Your task to perform on an android device: Open network settings Image 0: 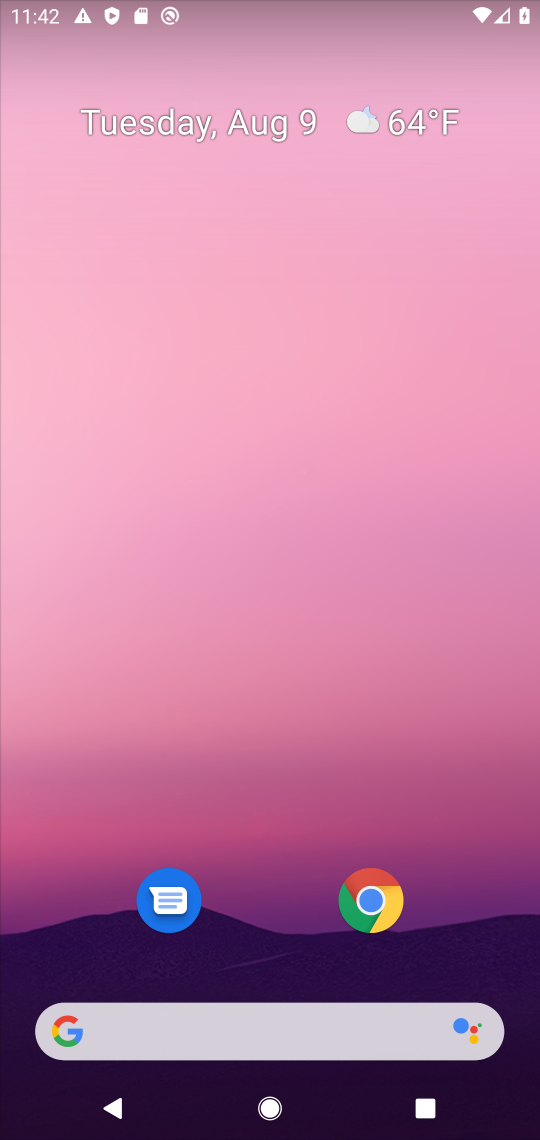
Step 0: drag from (302, 855) to (316, 74)
Your task to perform on an android device: Open network settings Image 1: 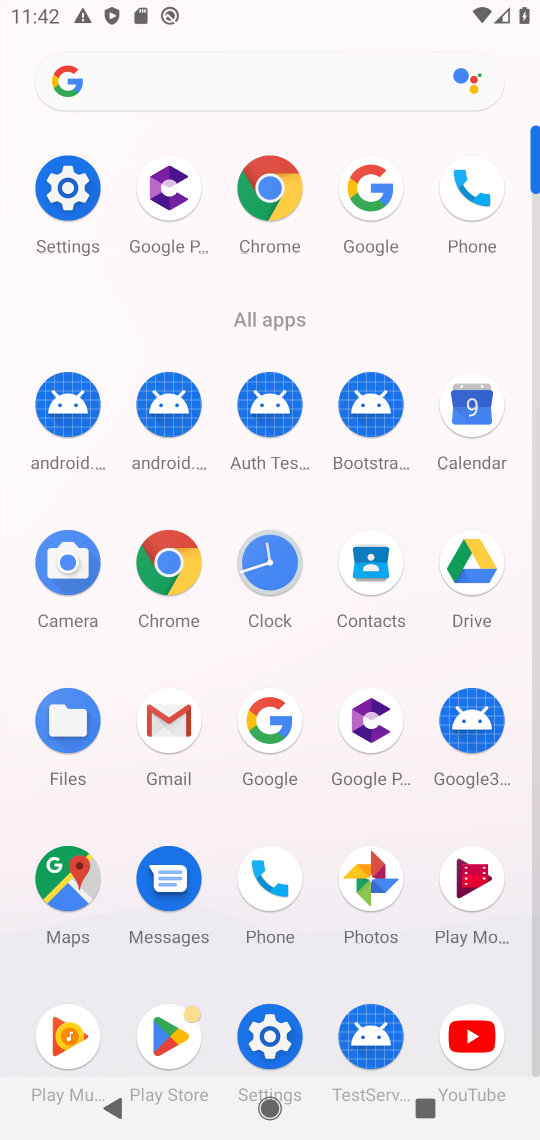
Step 1: click (63, 179)
Your task to perform on an android device: Open network settings Image 2: 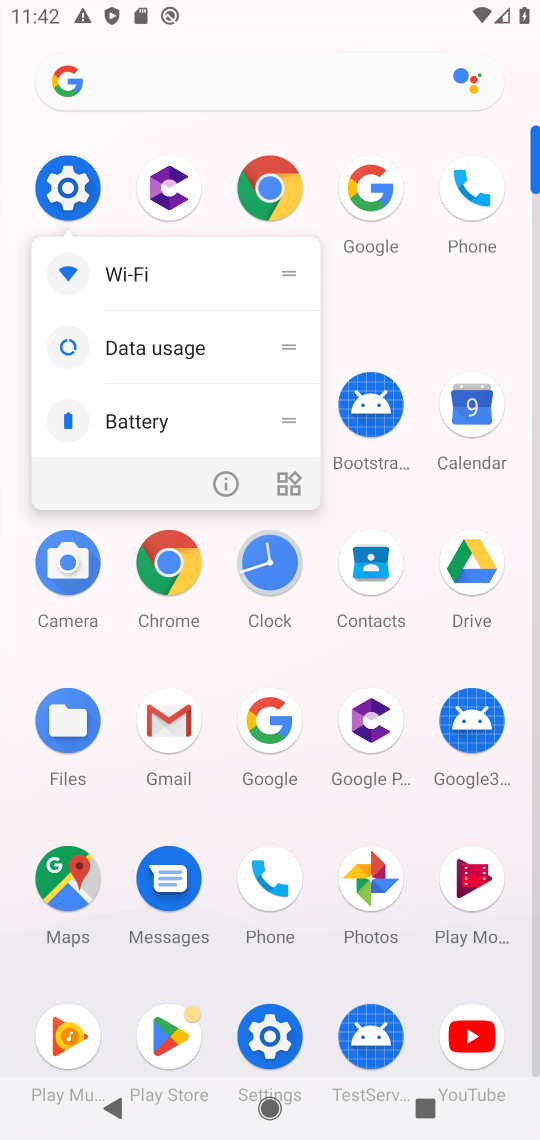
Step 2: click (67, 186)
Your task to perform on an android device: Open network settings Image 3: 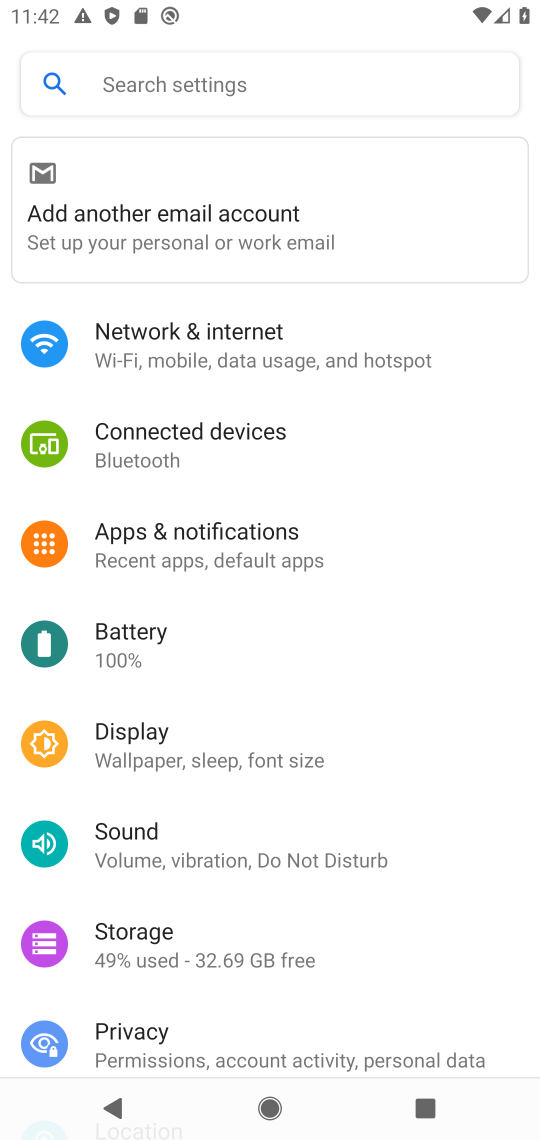
Step 3: click (230, 338)
Your task to perform on an android device: Open network settings Image 4: 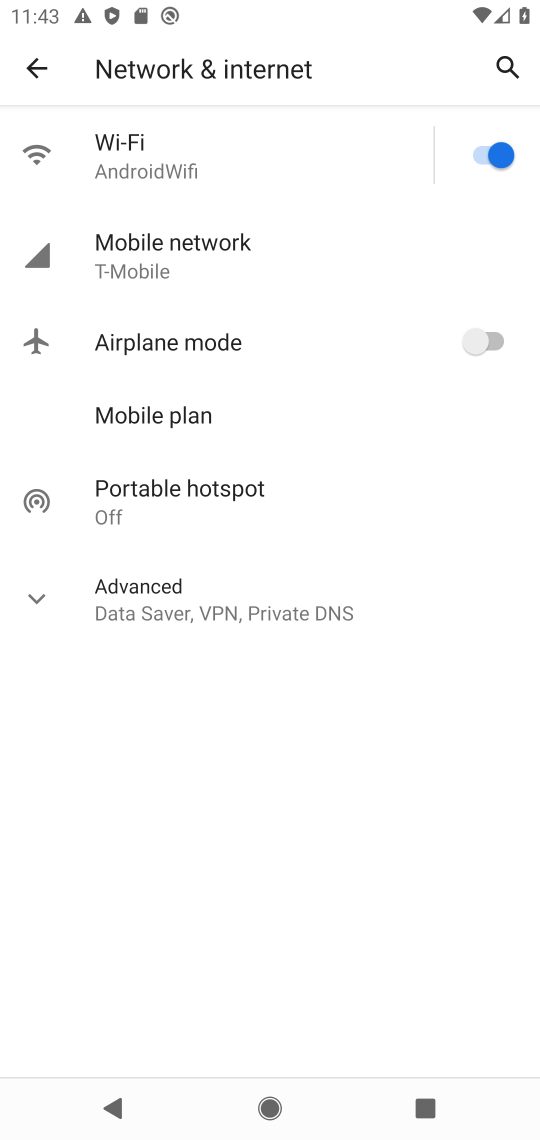
Step 4: task complete